Your task to perform on an android device: toggle notification dots Image 0: 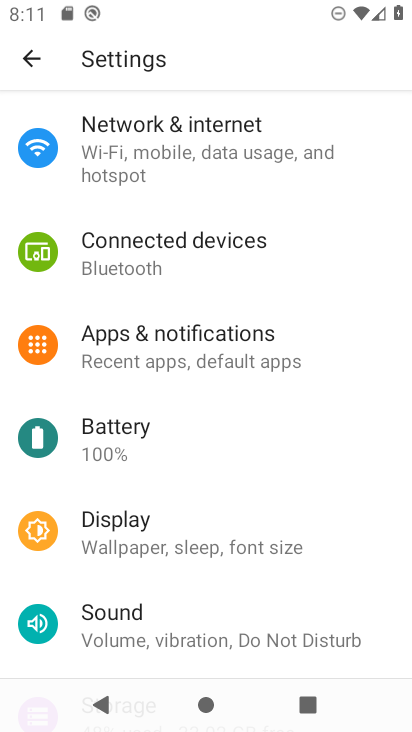
Step 0: click (240, 350)
Your task to perform on an android device: toggle notification dots Image 1: 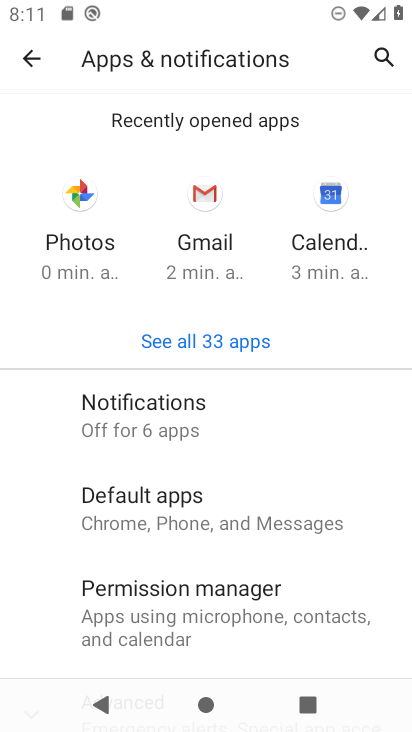
Step 1: click (198, 418)
Your task to perform on an android device: toggle notification dots Image 2: 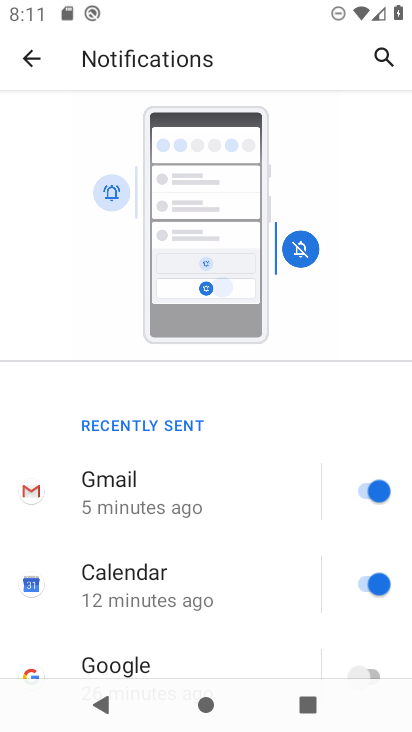
Step 2: drag from (241, 587) to (276, 180)
Your task to perform on an android device: toggle notification dots Image 3: 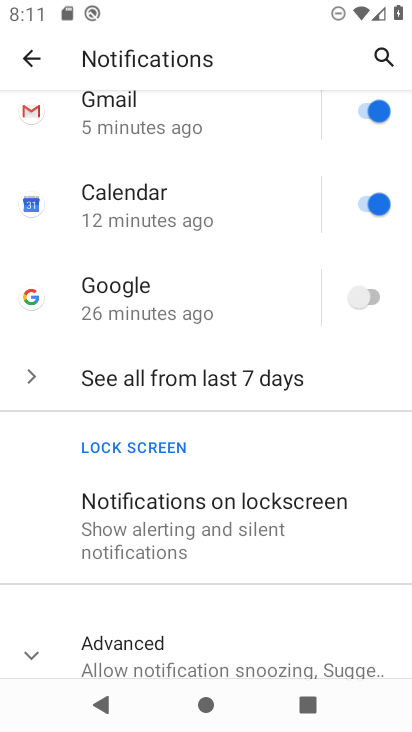
Step 3: click (36, 647)
Your task to perform on an android device: toggle notification dots Image 4: 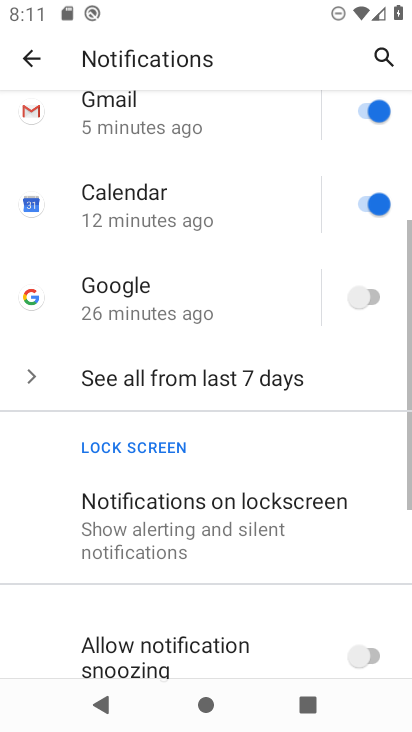
Step 4: drag from (256, 549) to (313, 118)
Your task to perform on an android device: toggle notification dots Image 5: 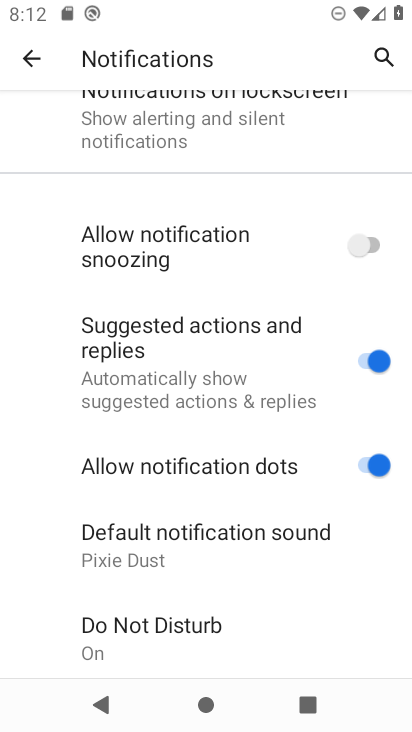
Step 5: click (354, 459)
Your task to perform on an android device: toggle notification dots Image 6: 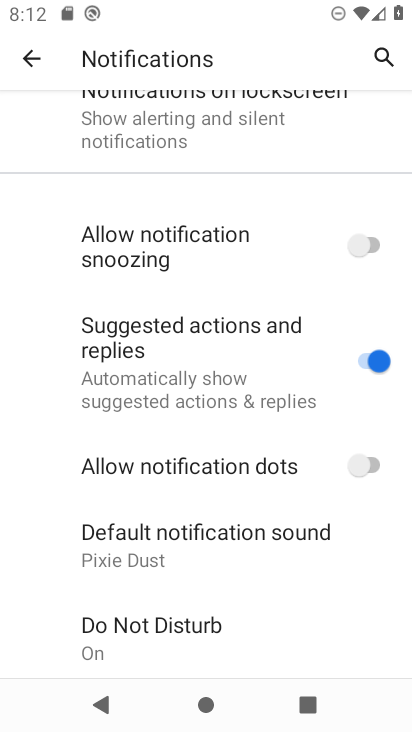
Step 6: task complete